Your task to perform on an android device: Open Android settings Image 0: 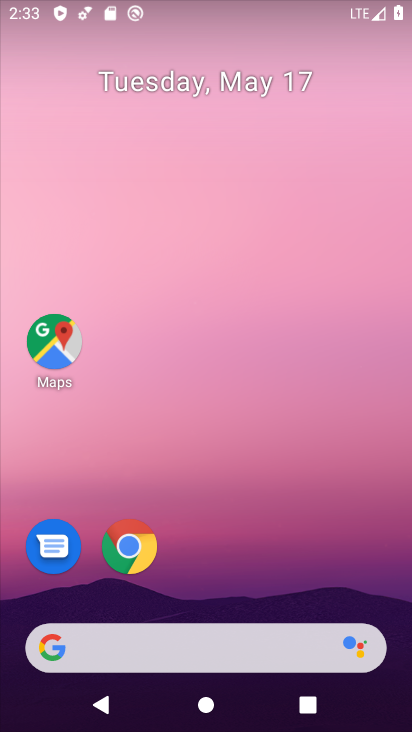
Step 0: press home button
Your task to perform on an android device: Open Android settings Image 1: 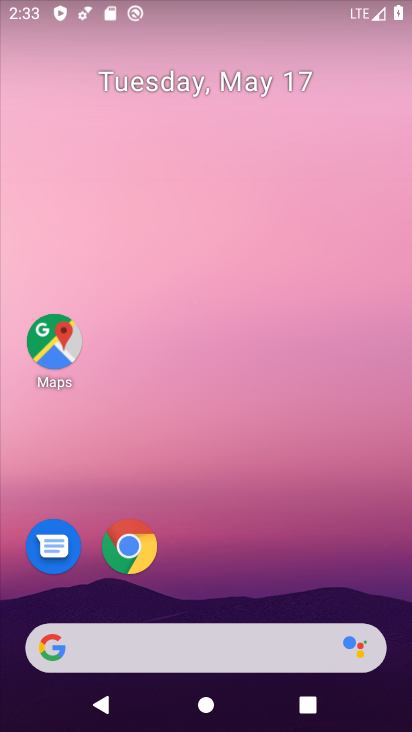
Step 1: drag from (320, 548) to (352, 8)
Your task to perform on an android device: Open Android settings Image 2: 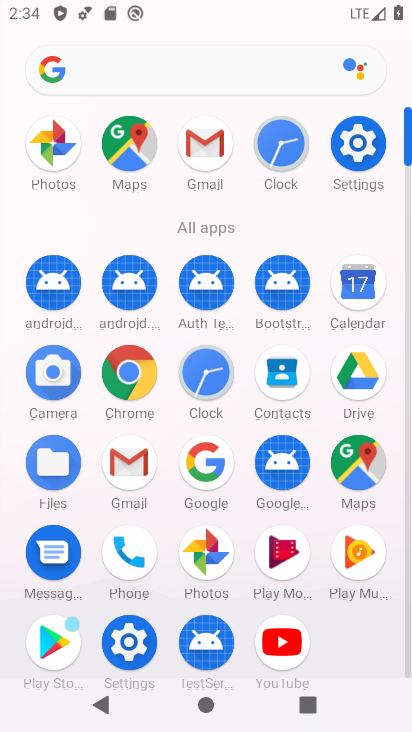
Step 2: click (152, 652)
Your task to perform on an android device: Open Android settings Image 3: 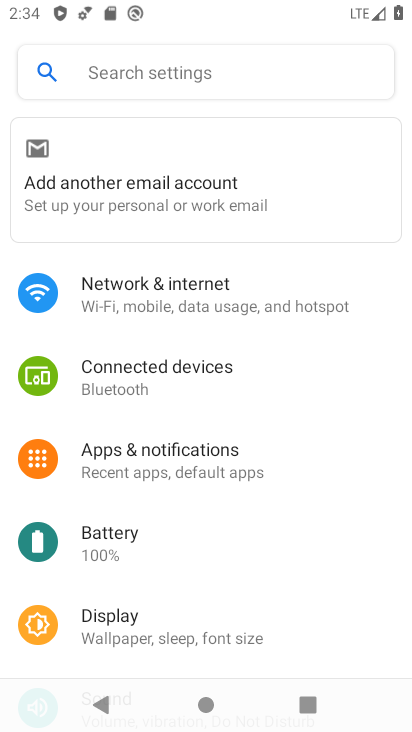
Step 3: drag from (200, 636) to (343, 23)
Your task to perform on an android device: Open Android settings Image 4: 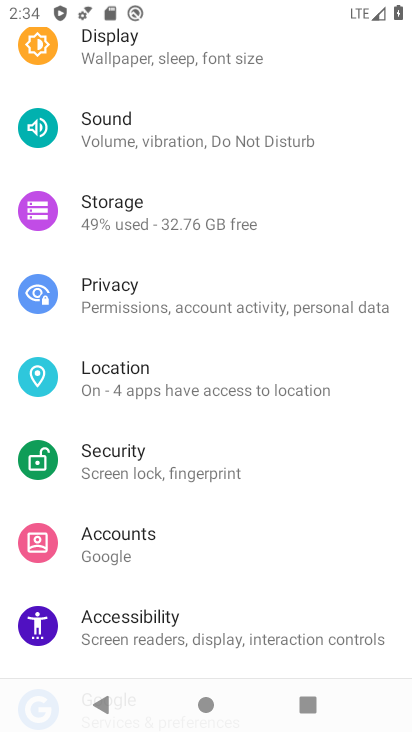
Step 4: drag from (157, 604) to (283, 158)
Your task to perform on an android device: Open Android settings Image 5: 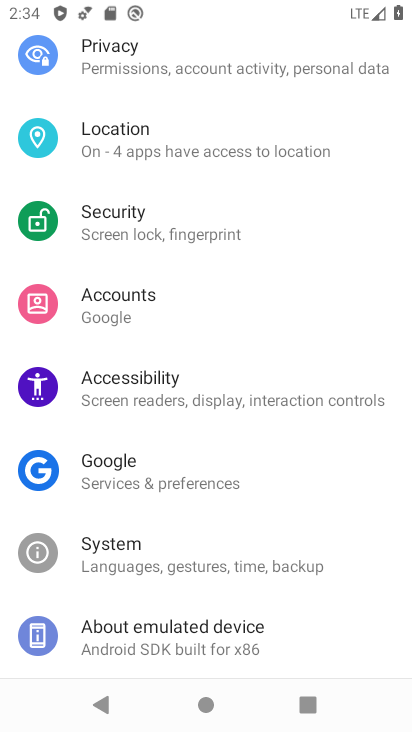
Step 5: click (143, 631)
Your task to perform on an android device: Open Android settings Image 6: 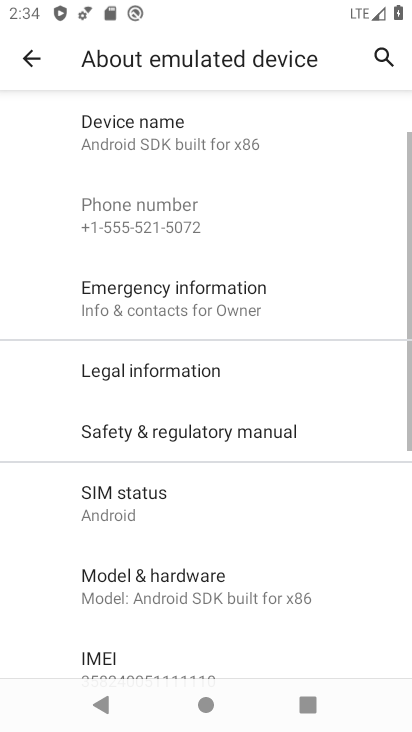
Step 6: drag from (143, 631) to (245, 275)
Your task to perform on an android device: Open Android settings Image 7: 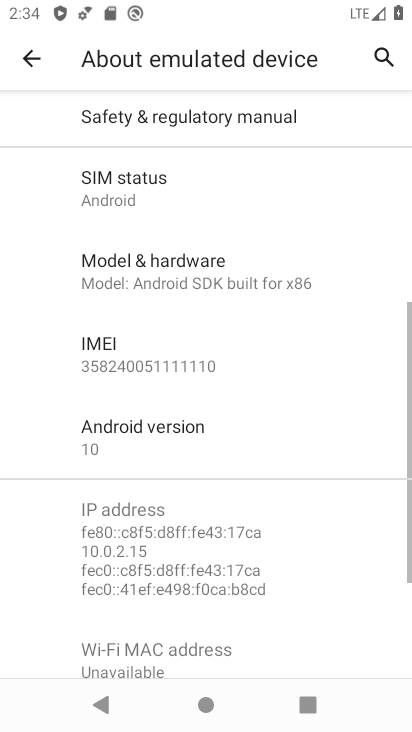
Step 7: click (245, 275)
Your task to perform on an android device: Open Android settings Image 8: 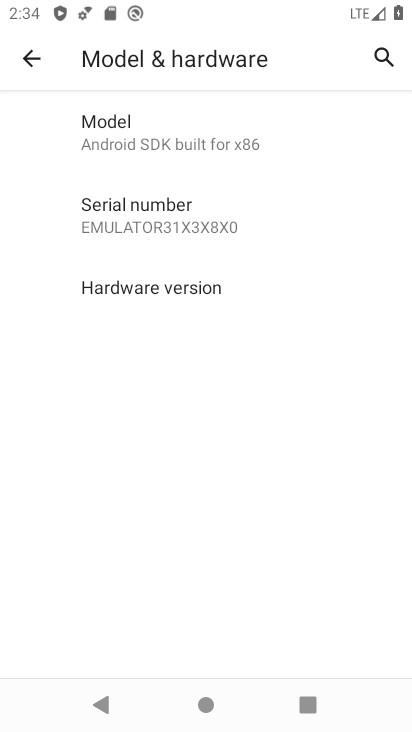
Step 8: click (211, 449)
Your task to perform on an android device: Open Android settings Image 9: 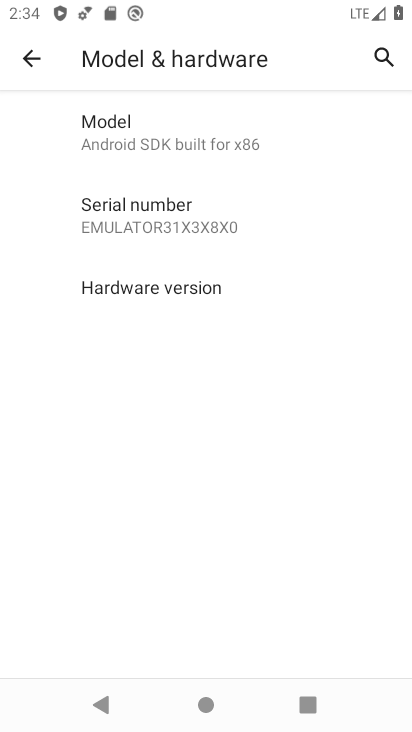
Step 9: click (34, 57)
Your task to perform on an android device: Open Android settings Image 10: 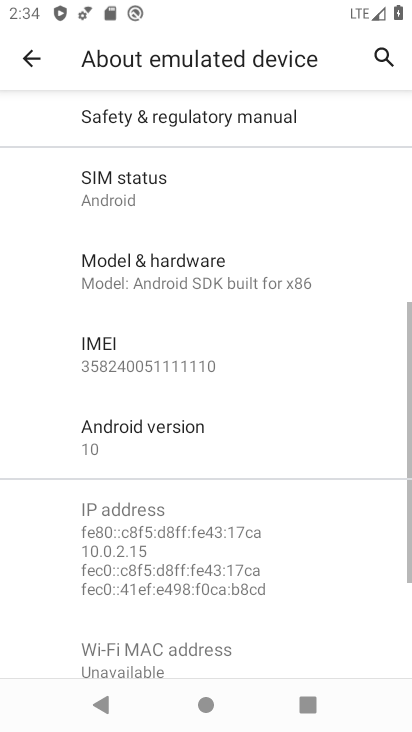
Step 10: click (156, 443)
Your task to perform on an android device: Open Android settings Image 11: 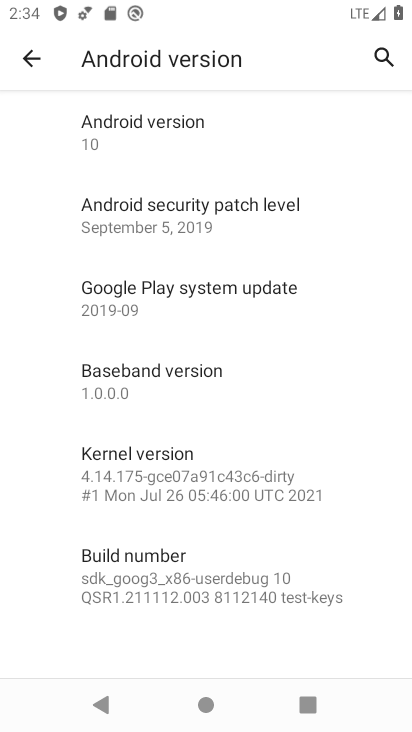
Step 11: task complete